Your task to perform on an android device: Clear the cart on amazon. Image 0: 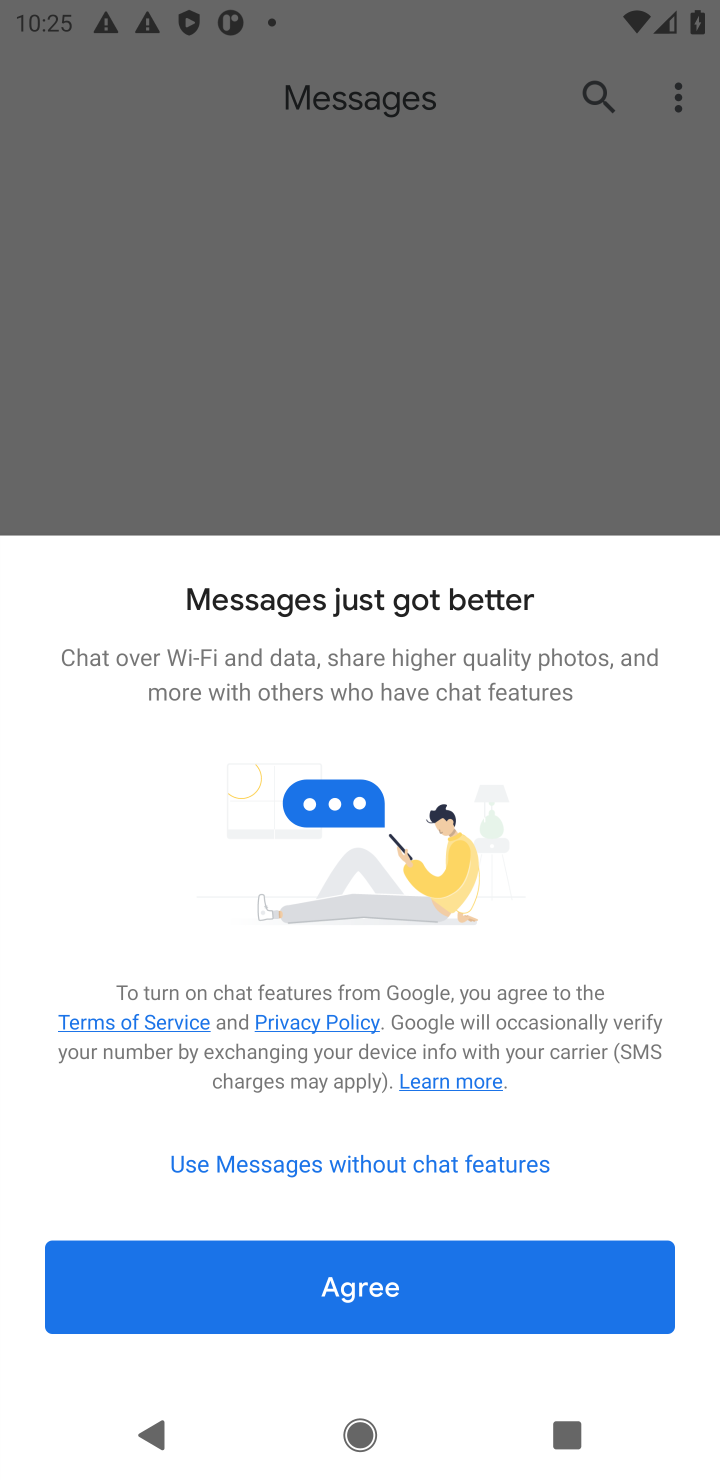
Step 0: press home button
Your task to perform on an android device: Clear the cart on amazon. Image 1: 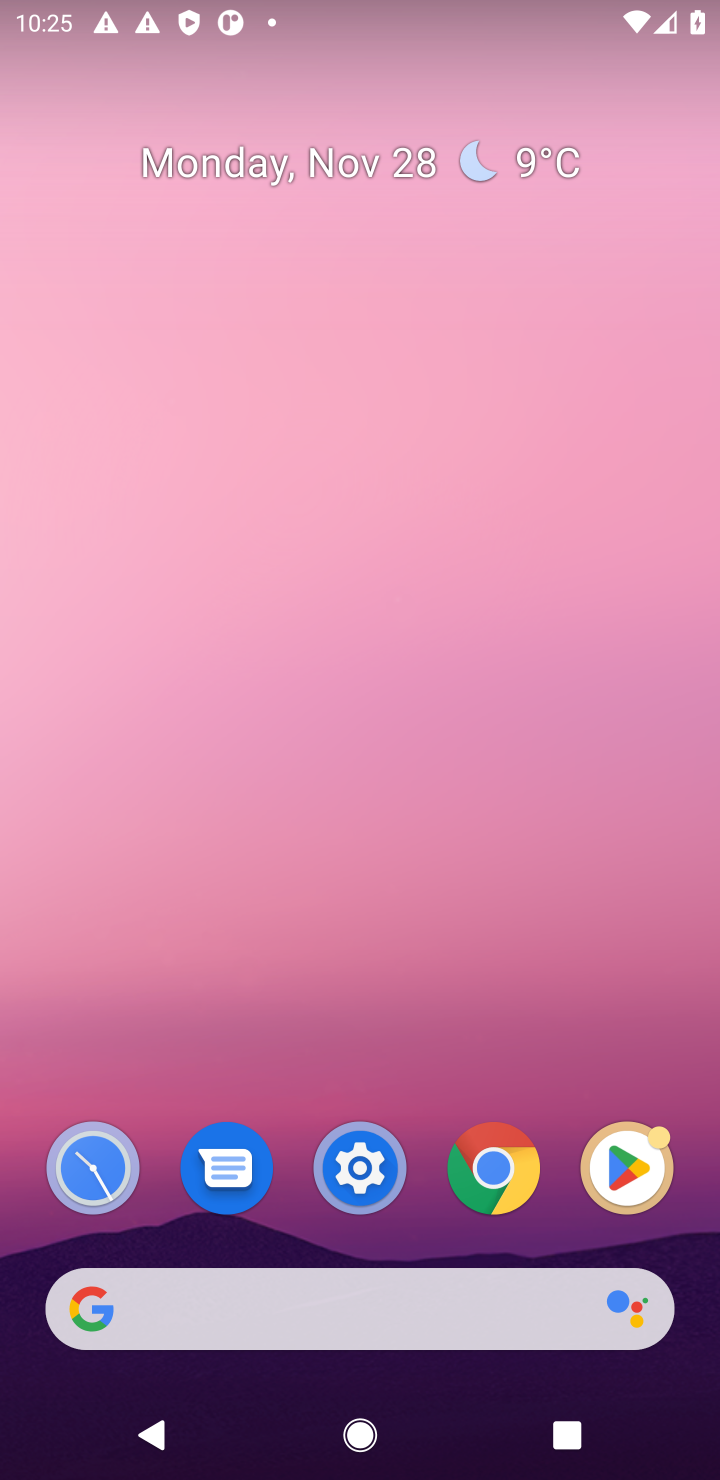
Step 1: click (218, 1295)
Your task to perform on an android device: Clear the cart on amazon. Image 2: 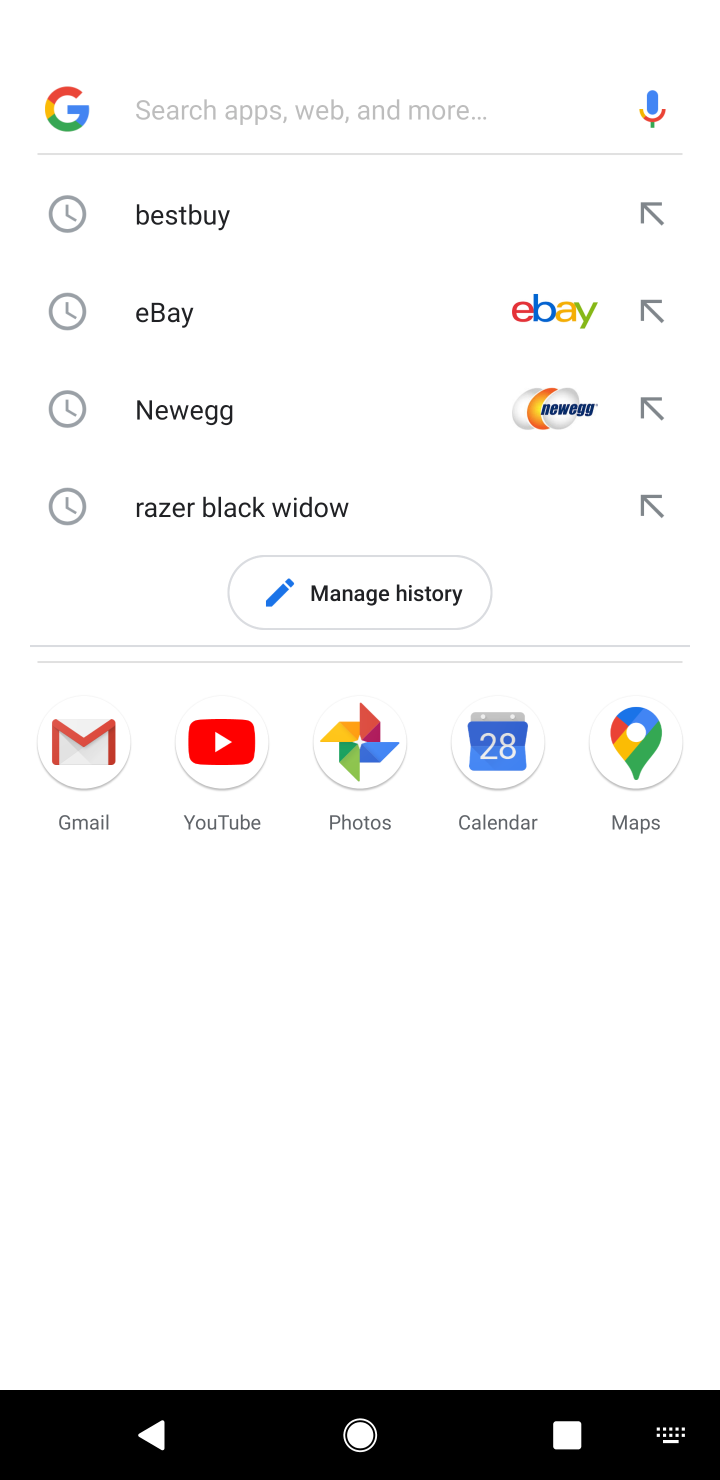
Step 2: type "amazon"
Your task to perform on an android device: Clear the cart on amazon. Image 3: 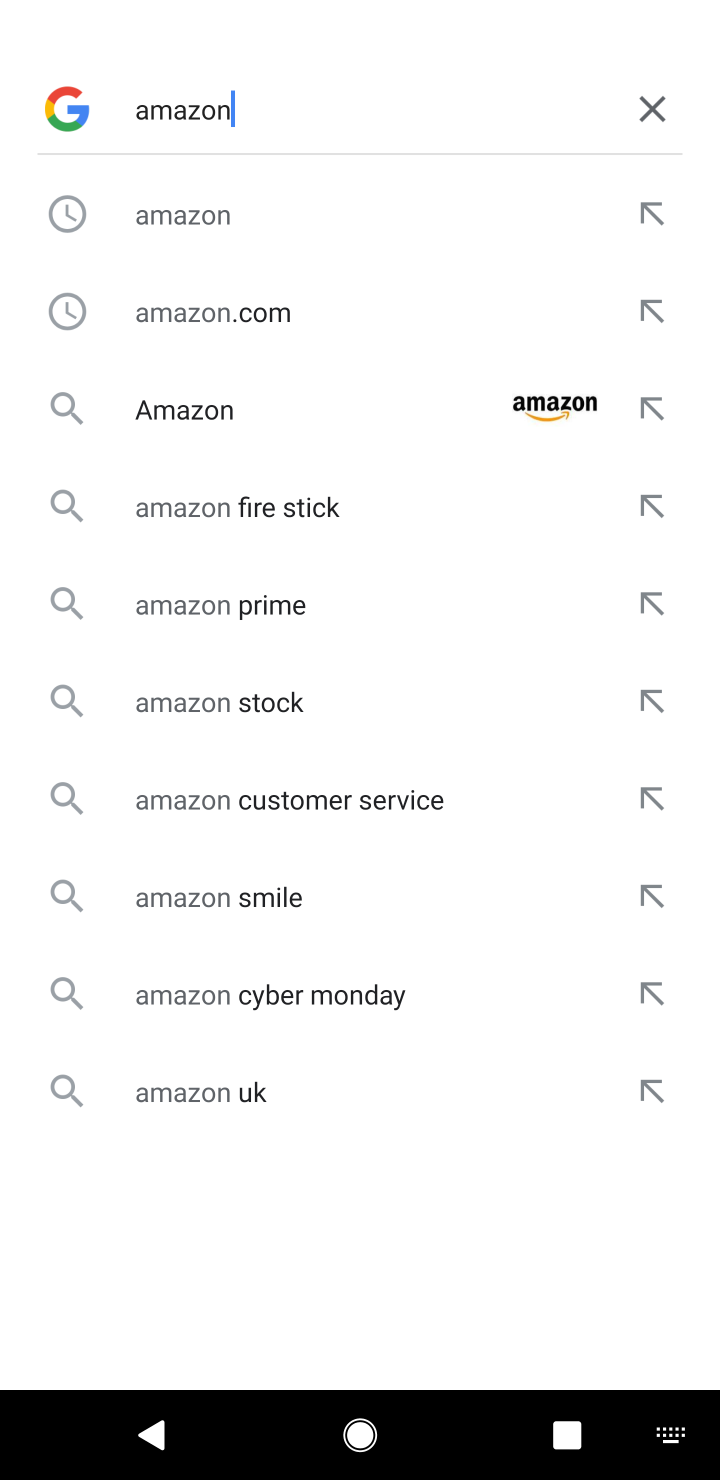
Step 3: click (231, 408)
Your task to perform on an android device: Clear the cart on amazon. Image 4: 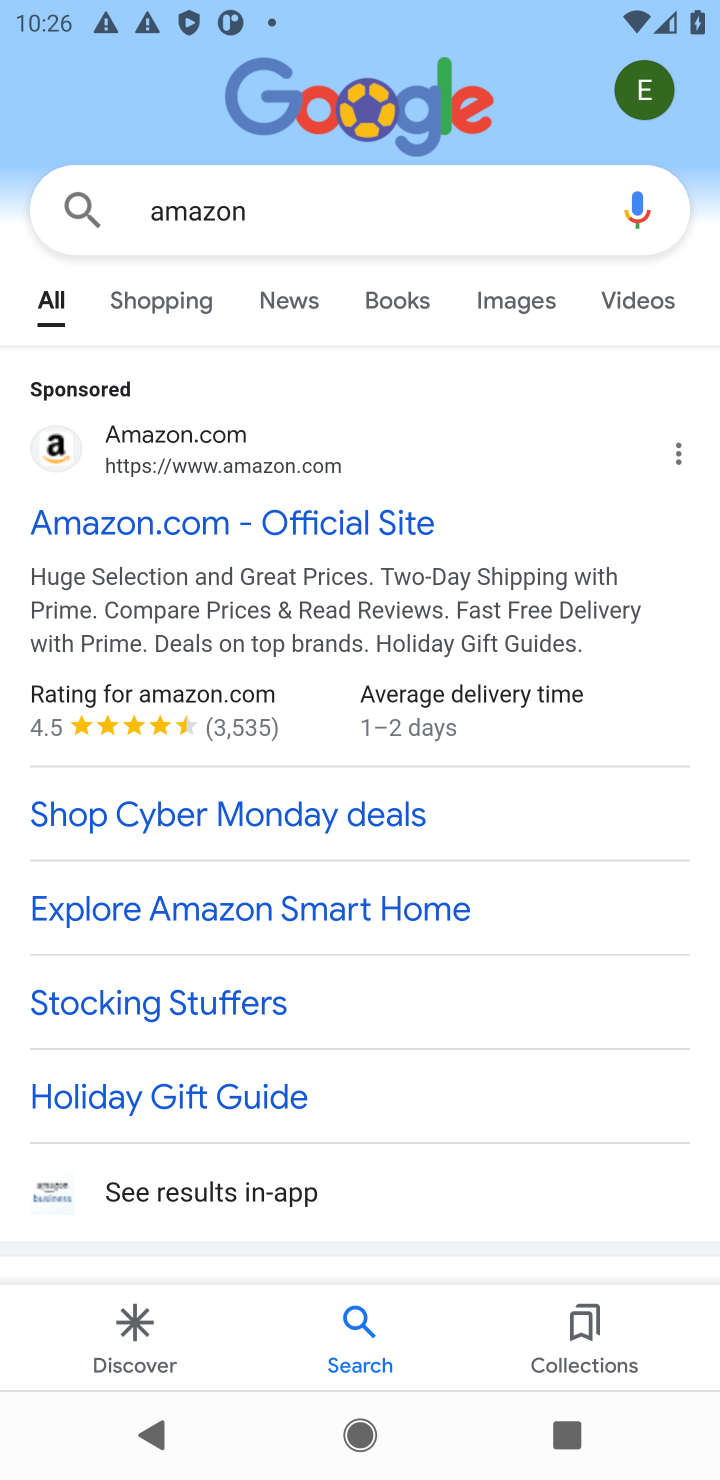
Step 4: click (154, 553)
Your task to perform on an android device: Clear the cart on amazon. Image 5: 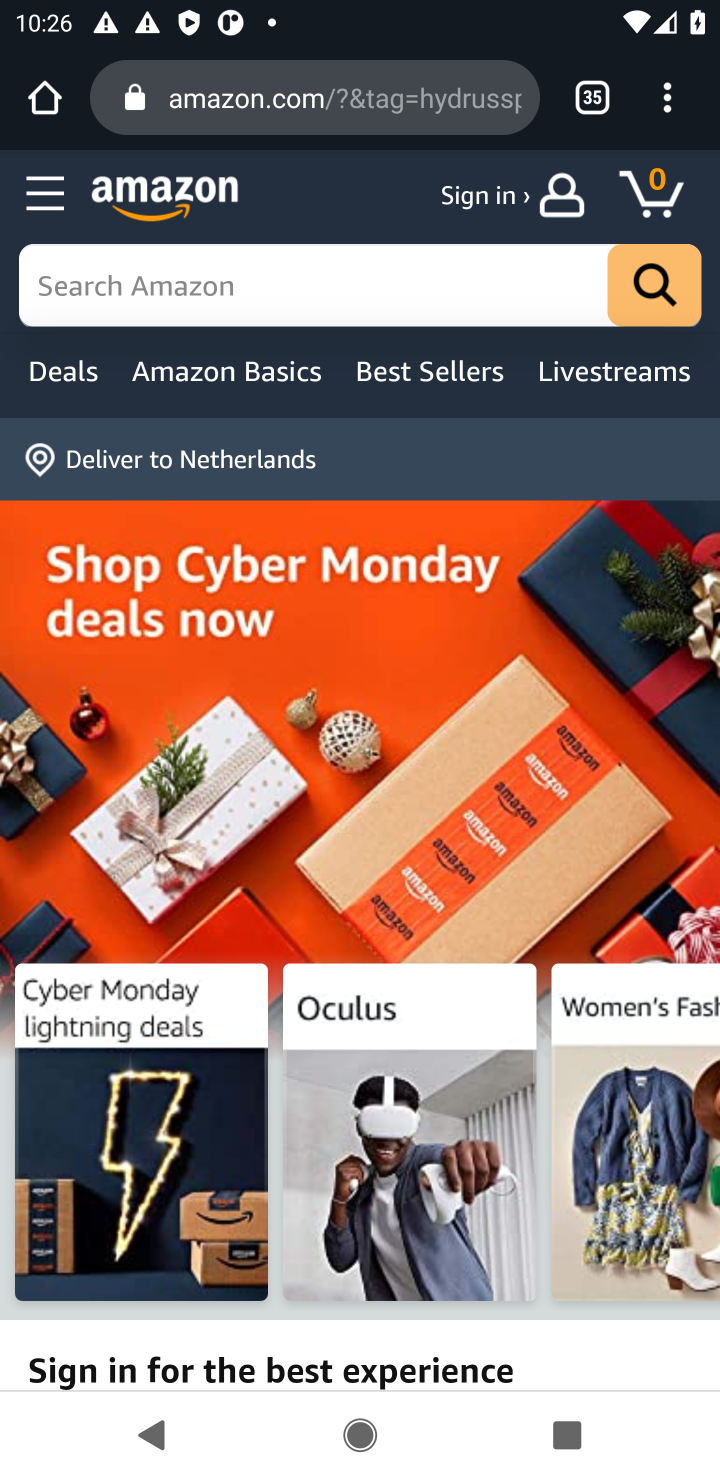
Step 5: click (199, 297)
Your task to perform on an android device: Clear the cart on amazon. Image 6: 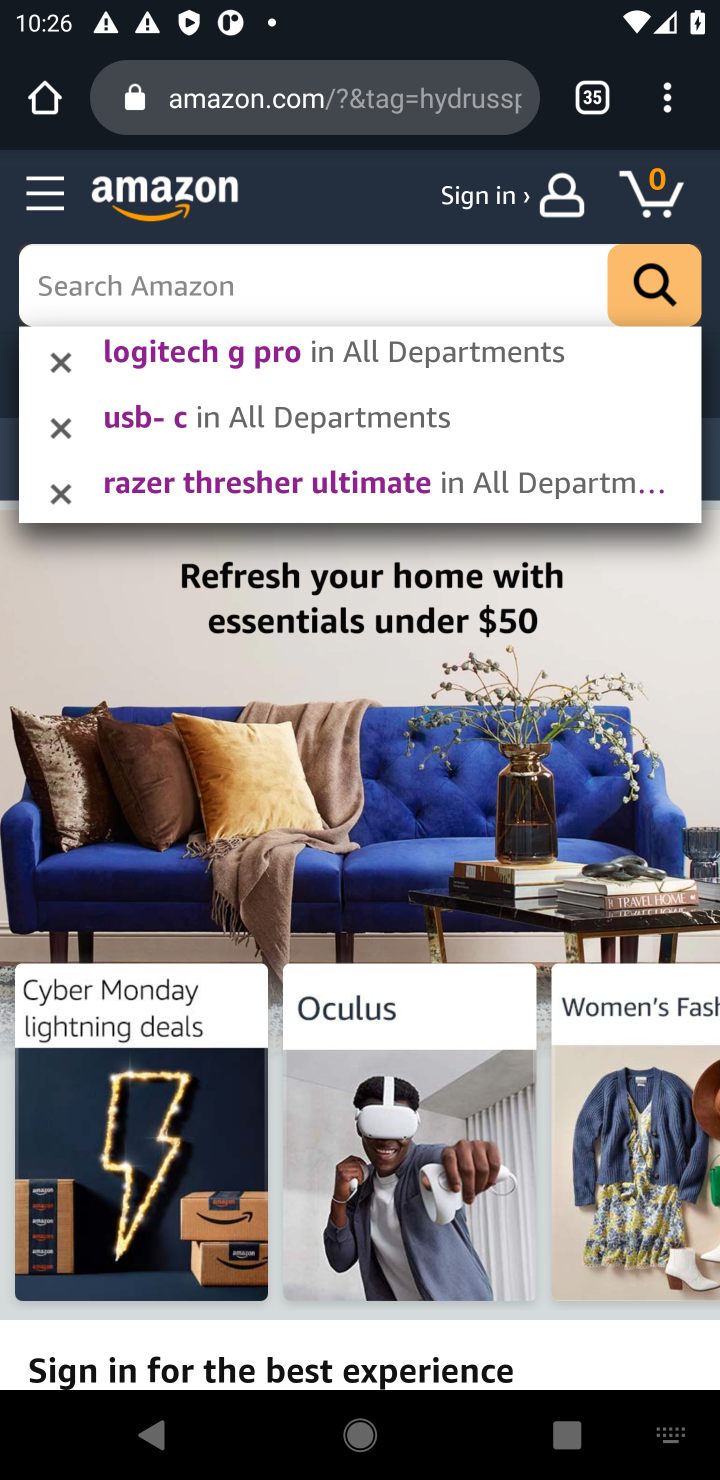
Step 6: click (647, 191)
Your task to perform on an android device: Clear the cart on amazon. Image 7: 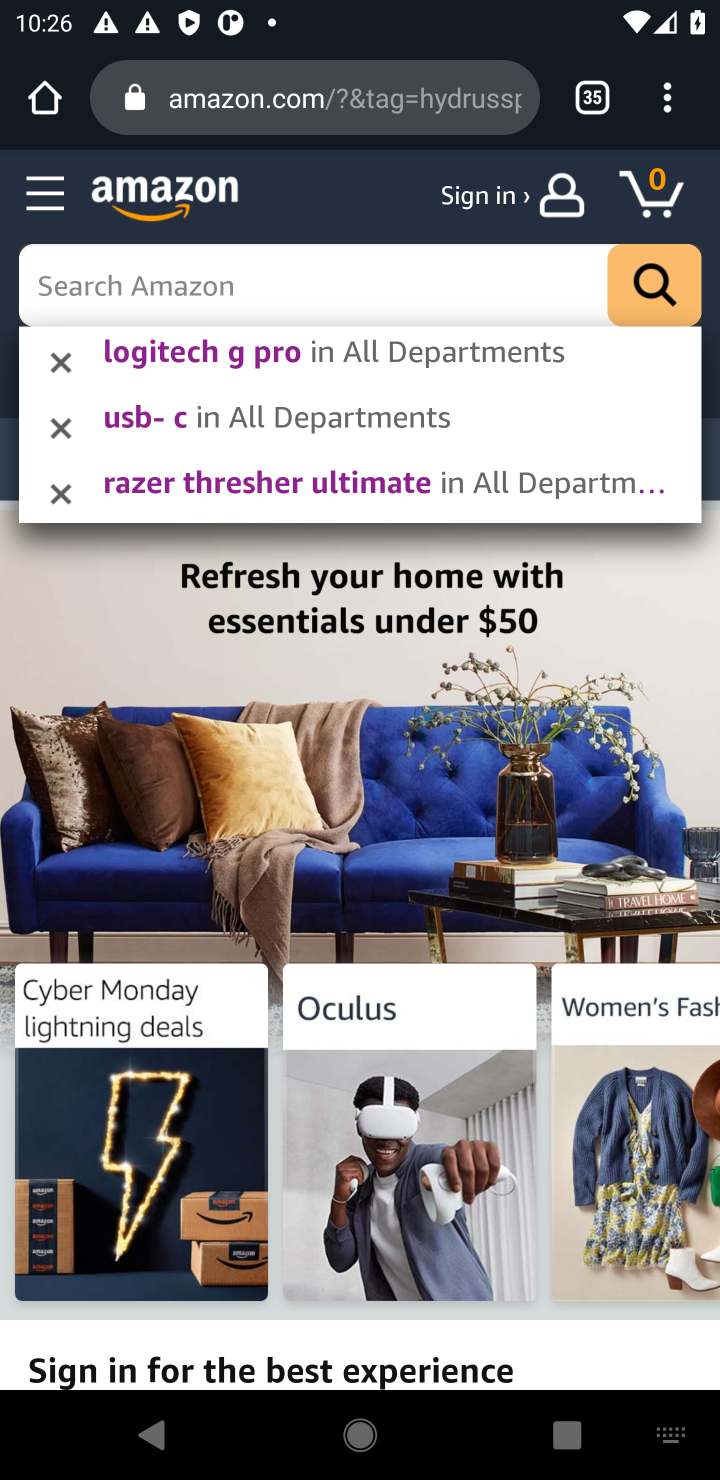
Step 7: task complete